Your task to perform on an android device: toggle airplane mode Image 0: 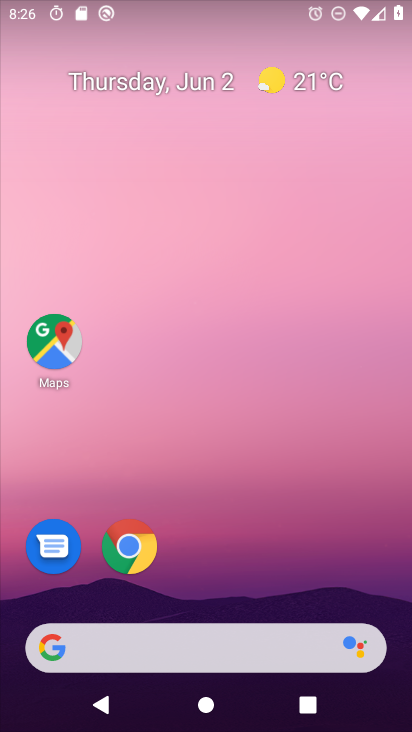
Step 0: drag from (297, 573) to (312, 195)
Your task to perform on an android device: toggle airplane mode Image 1: 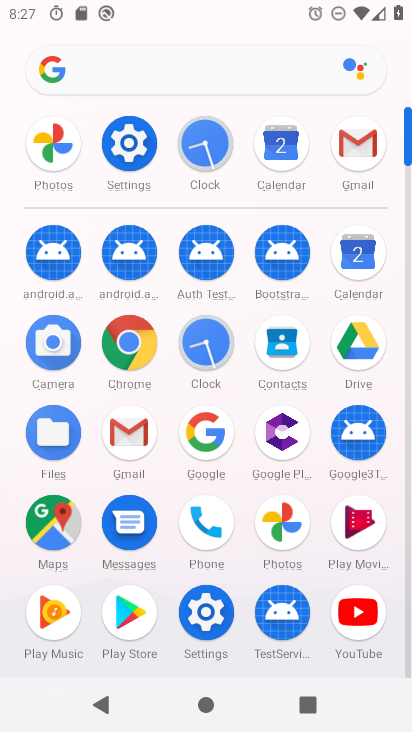
Step 1: click (194, 621)
Your task to perform on an android device: toggle airplane mode Image 2: 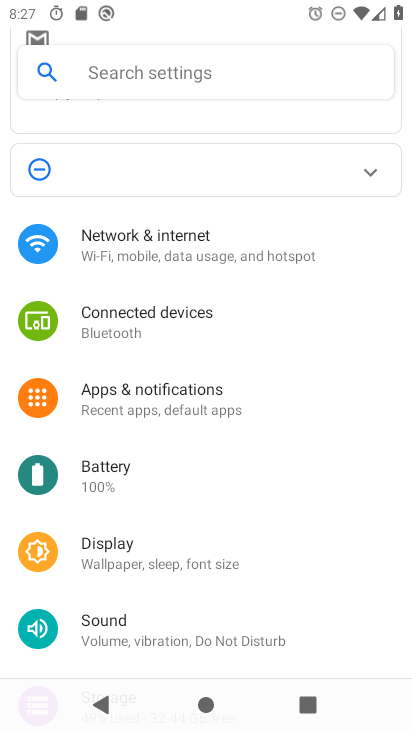
Step 2: drag from (297, 600) to (329, 360)
Your task to perform on an android device: toggle airplane mode Image 3: 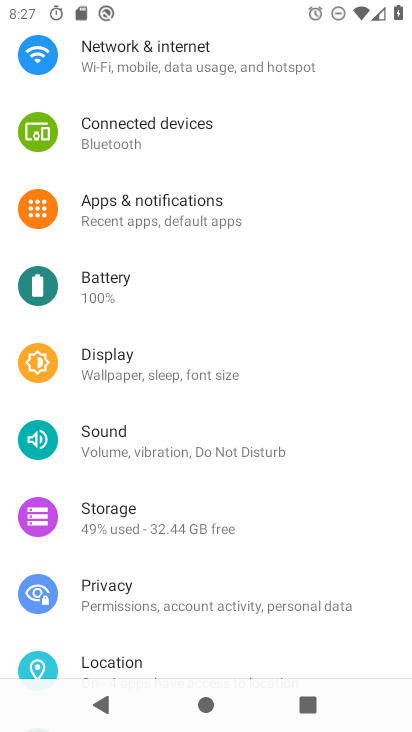
Step 3: drag from (298, 665) to (297, 337)
Your task to perform on an android device: toggle airplane mode Image 4: 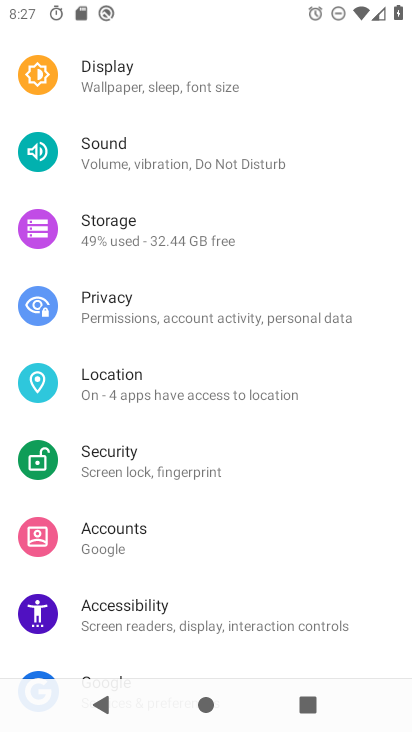
Step 4: drag from (260, 47) to (199, 523)
Your task to perform on an android device: toggle airplane mode Image 5: 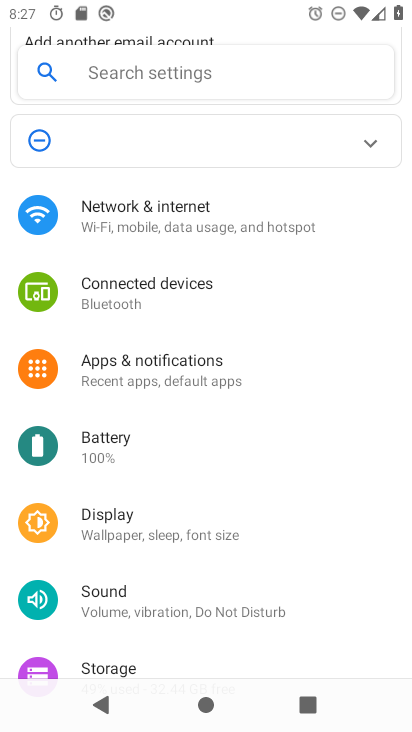
Step 5: click (216, 217)
Your task to perform on an android device: toggle airplane mode Image 6: 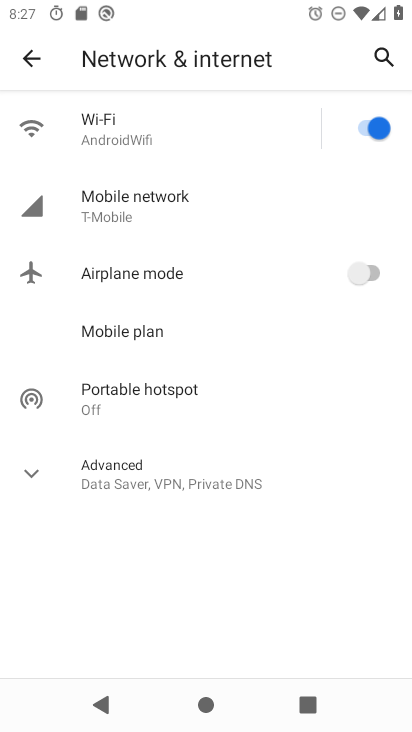
Step 6: click (200, 293)
Your task to perform on an android device: toggle airplane mode Image 7: 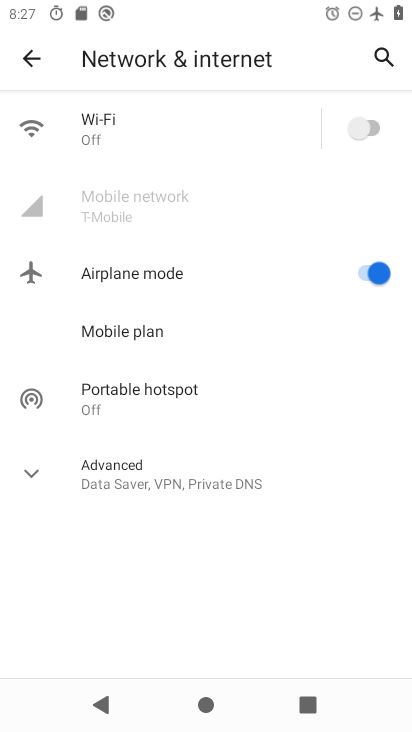
Step 7: task complete